Your task to perform on an android device: turn on javascript in the chrome app Image 0: 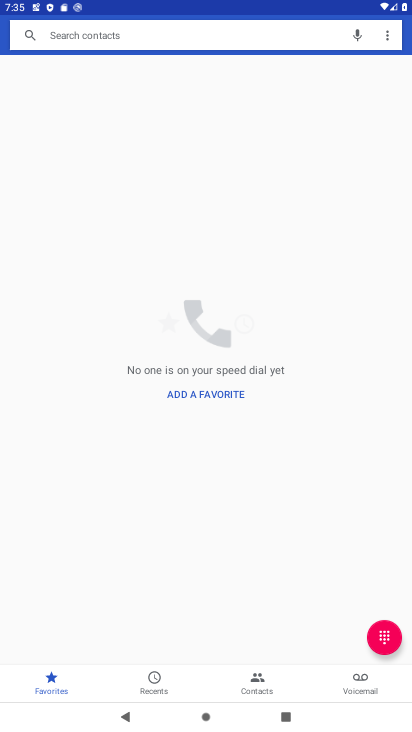
Step 0: press home button
Your task to perform on an android device: turn on javascript in the chrome app Image 1: 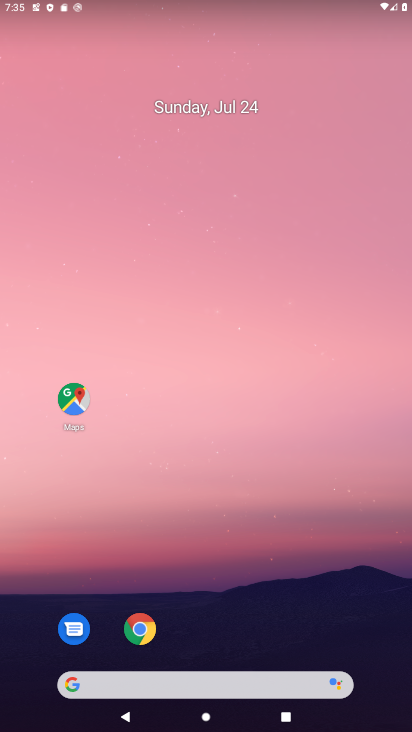
Step 1: drag from (348, 617) to (353, 99)
Your task to perform on an android device: turn on javascript in the chrome app Image 2: 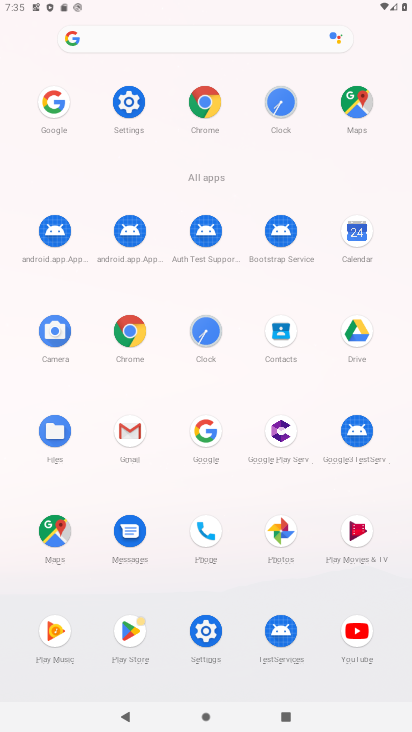
Step 2: click (129, 336)
Your task to perform on an android device: turn on javascript in the chrome app Image 3: 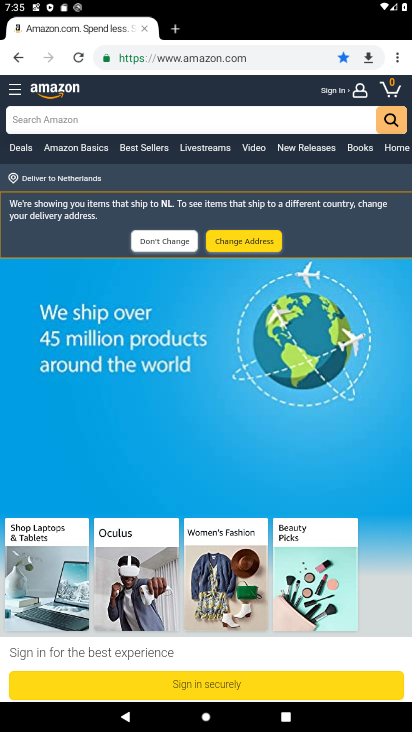
Step 3: click (400, 61)
Your task to perform on an android device: turn on javascript in the chrome app Image 4: 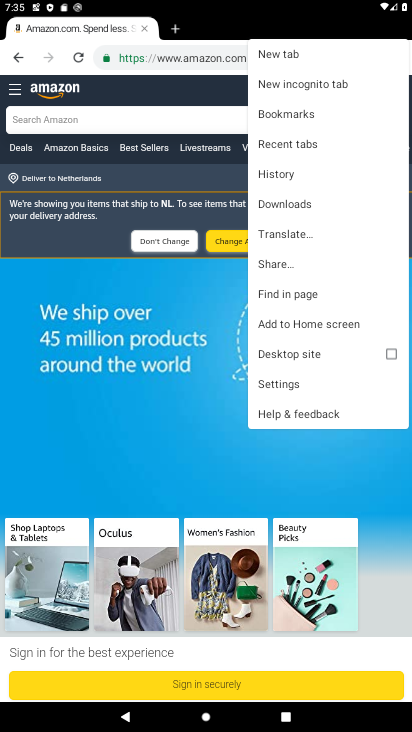
Step 4: click (295, 385)
Your task to perform on an android device: turn on javascript in the chrome app Image 5: 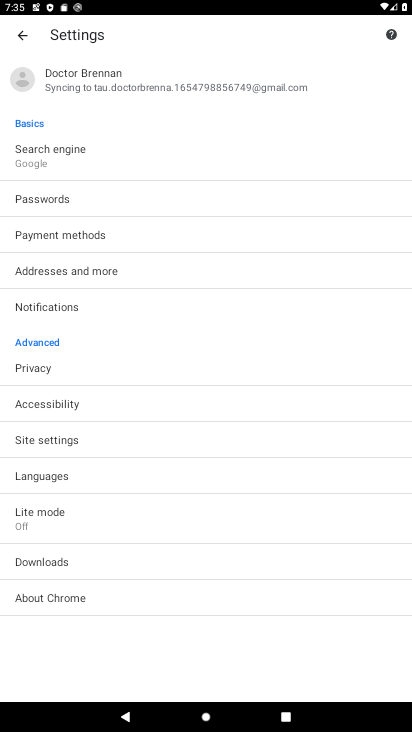
Step 5: drag from (273, 538) to (286, 450)
Your task to perform on an android device: turn on javascript in the chrome app Image 6: 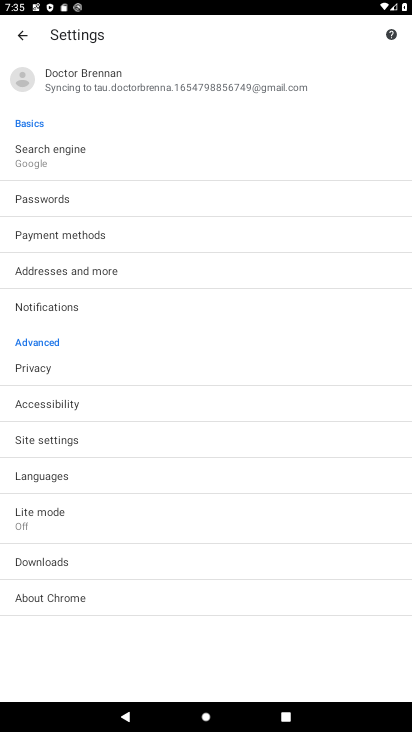
Step 6: click (246, 446)
Your task to perform on an android device: turn on javascript in the chrome app Image 7: 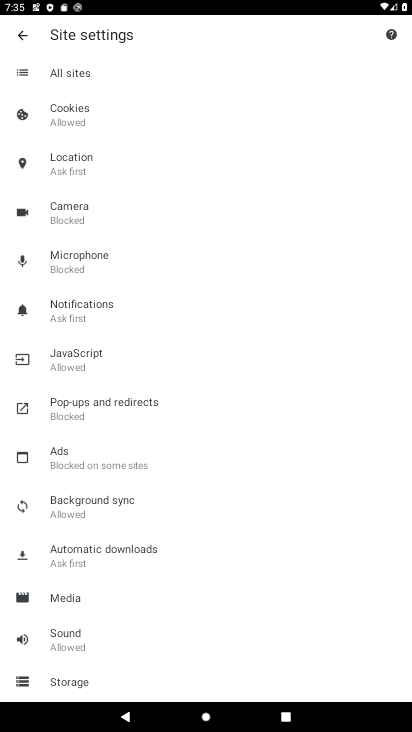
Step 7: drag from (280, 506) to (302, 416)
Your task to perform on an android device: turn on javascript in the chrome app Image 8: 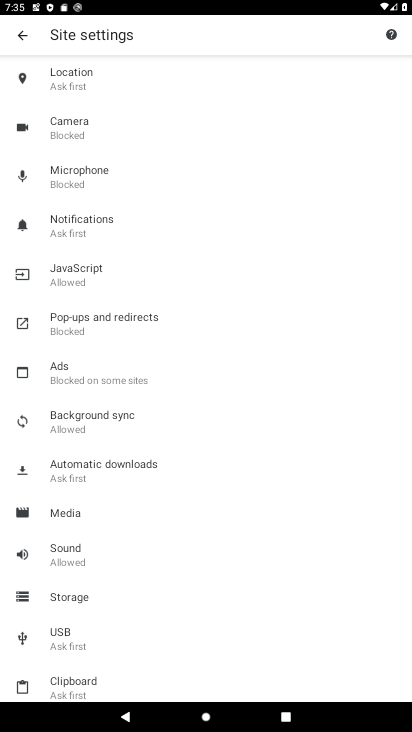
Step 8: drag from (312, 455) to (333, 364)
Your task to perform on an android device: turn on javascript in the chrome app Image 9: 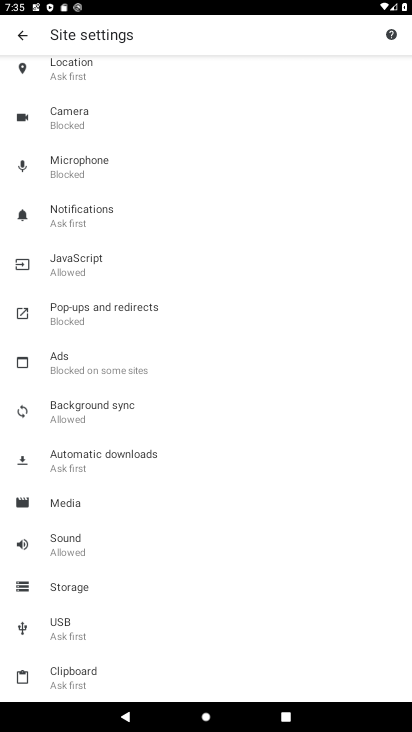
Step 9: drag from (316, 241) to (316, 425)
Your task to perform on an android device: turn on javascript in the chrome app Image 10: 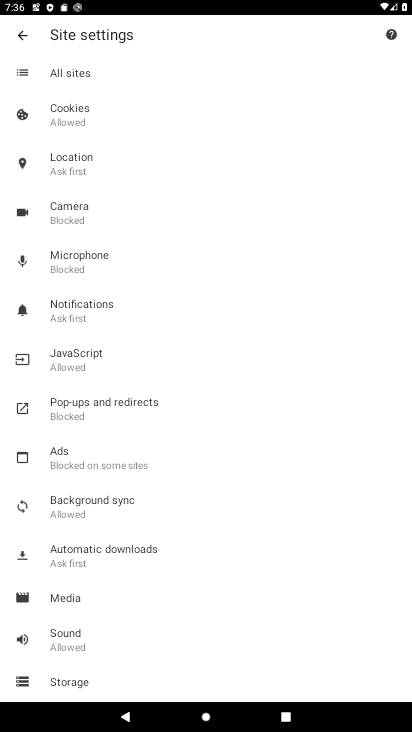
Step 10: click (198, 355)
Your task to perform on an android device: turn on javascript in the chrome app Image 11: 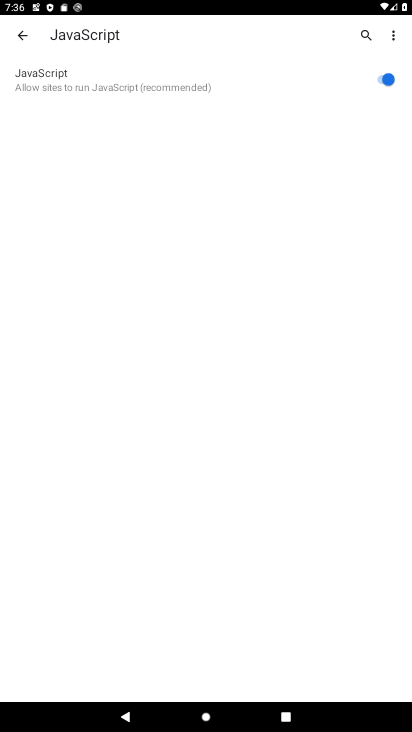
Step 11: task complete